Your task to perform on an android device: turn on translation in the chrome app Image 0: 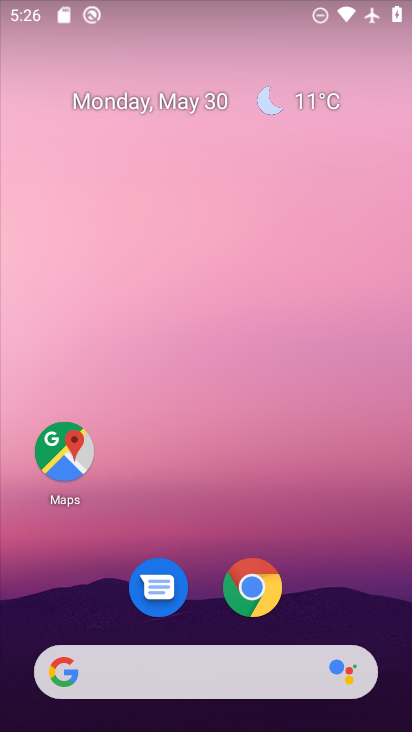
Step 0: drag from (349, 554) to (244, 2)
Your task to perform on an android device: turn on translation in the chrome app Image 1: 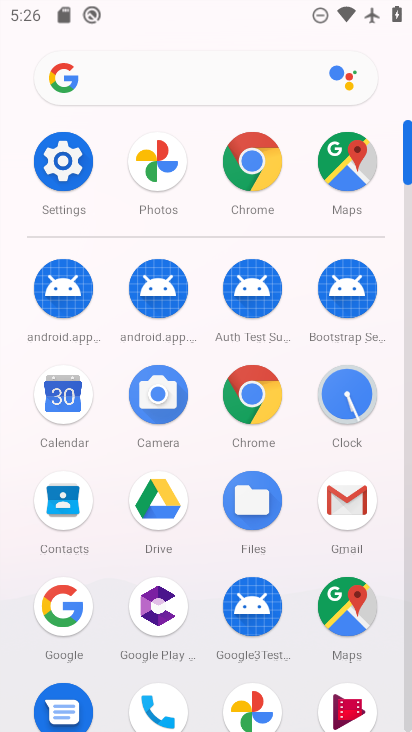
Step 1: drag from (25, 577) to (22, 259)
Your task to perform on an android device: turn on translation in the chrome app Image 2: 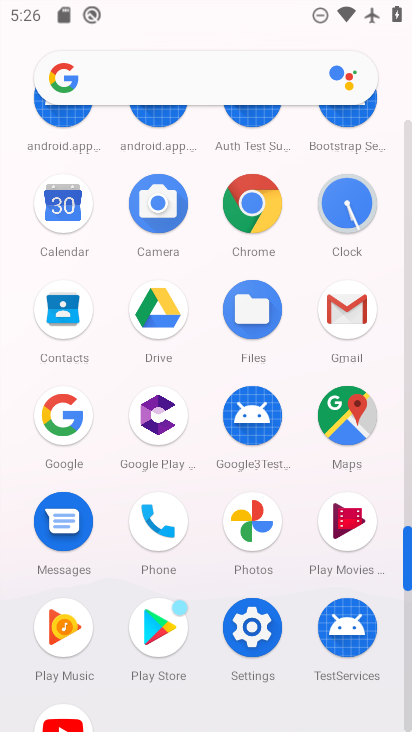
Step 2: click (252, 201)
Your task to perform on an android device: turn on translation in the chrome app Image 3: 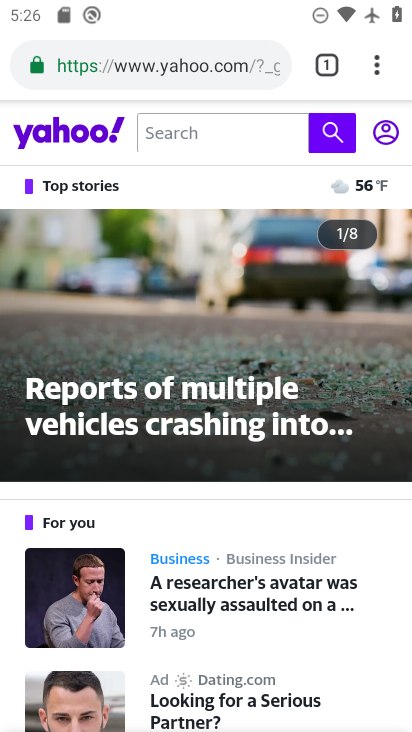
Step 3: drag from (382, 64) to (184, 631)
Your task to perform on an android device: turn on translation in the chrome app Image 4: 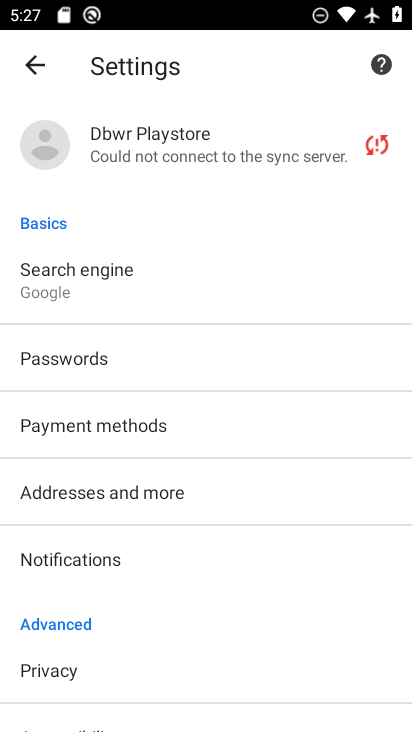
Step 4: drag from (259, 613) to (271, 194)
Your task to perform on an android device: turn on translation in the chrome app Image 5: 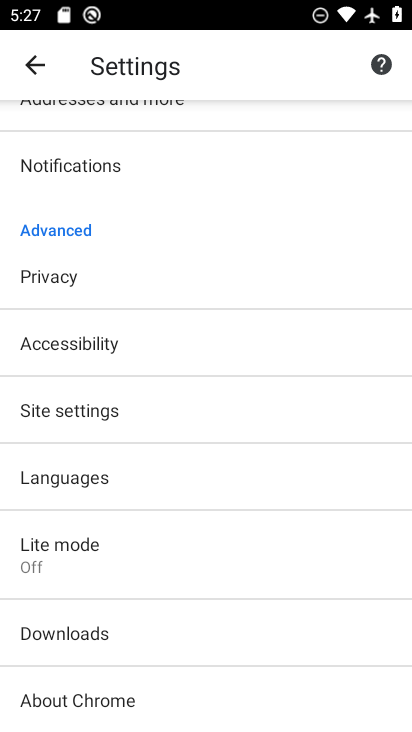
Step 5: drag from (196, 589) to (225, 208)
Your task to perform on an android device: turn on translation in the chrome app Image 6: 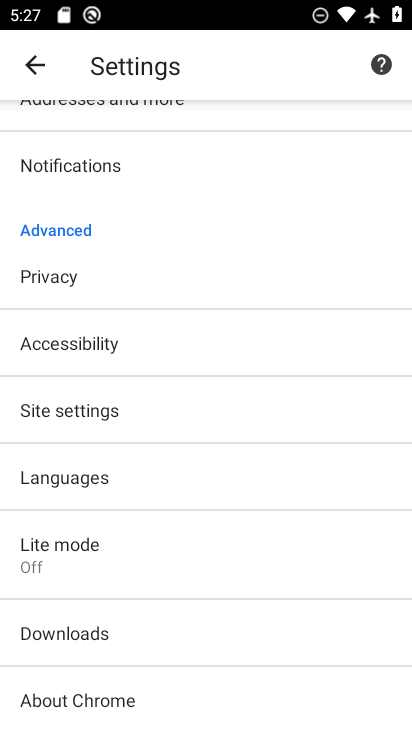
Step 6: click (114, 481)
Your task to perform on an android device: turn on translation in the chrome app Image 7: 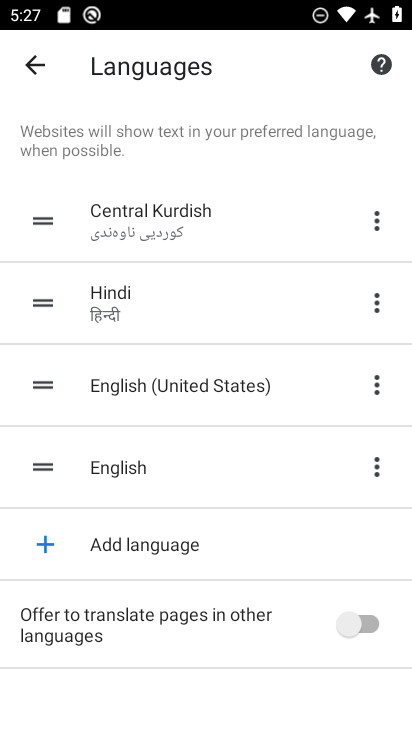
Step 7: click (369, 627)
Your task to perform on an android device: turn on translation in the chrome app Image 8: 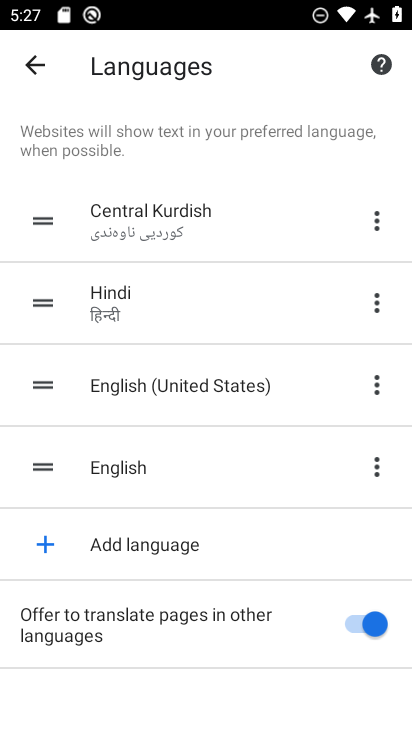
Step 8: task complete